Your task to perform on an android device: allow notifications from all sites in the chrome app Image 0: 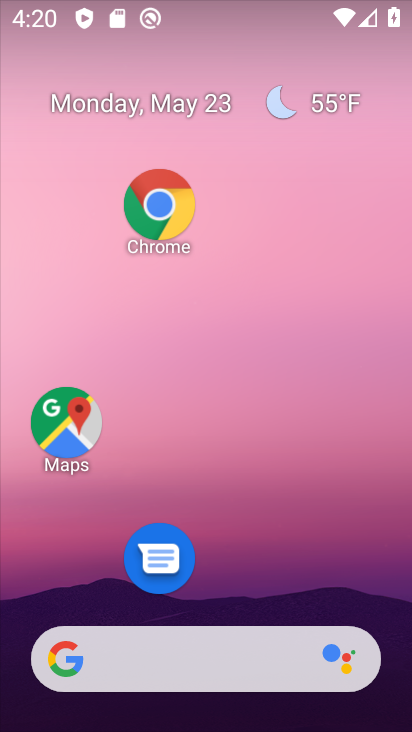
Step 0: drag from (279, 487) to (110, 0)
Your task to perform on an android device: allow notifications from all sites in the chrome app Image 1: 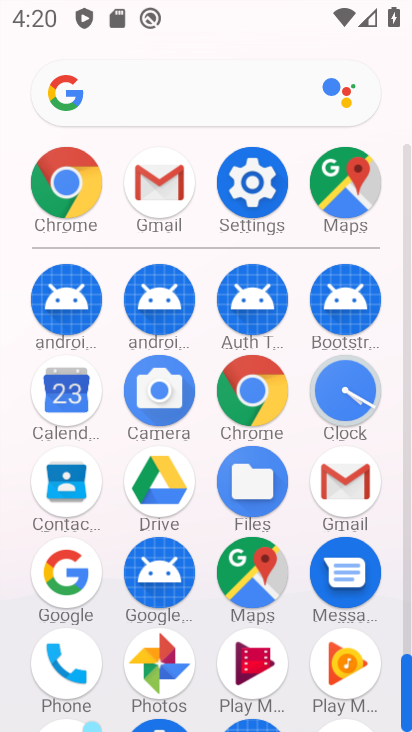
Step 1: click (70, 171)
Your task to perform on an android device: allow notifications from all sites in the chrome app Image 2: 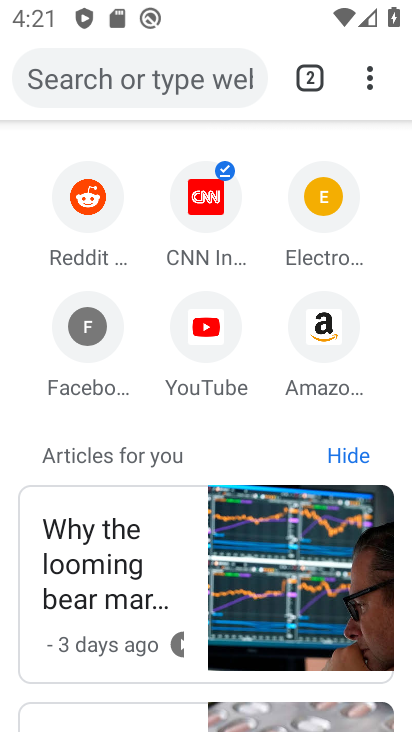
Step 2: drag from (367, 82) to (84, 614)
Your task to perform on an android device: allow notifications from all sites in the chrome app Image 3: 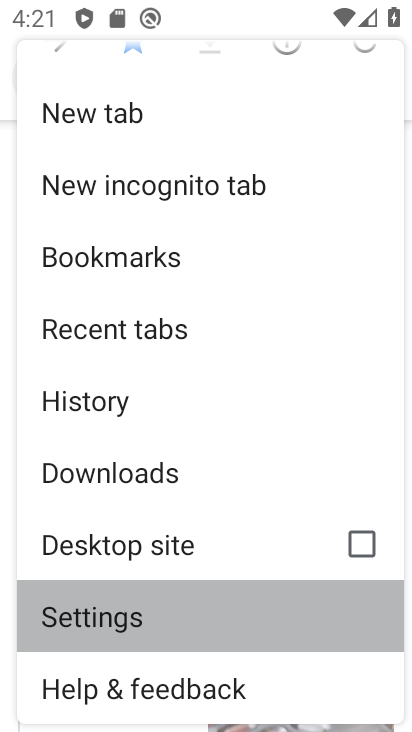
Step 3: click (84, 614)
Your task to perform on an android device: allow notifications from all sites in the chrome app Image 4: 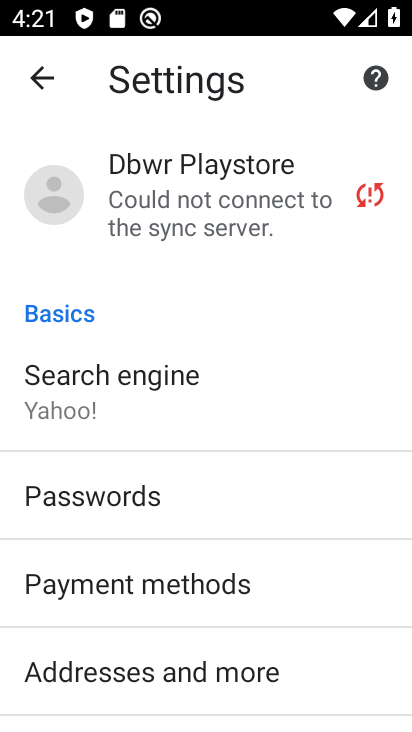
Step 4: drag from (183, 558) to (135, 131)
Your task to perform on an android device: allow notifications from all sites in the chrome app Image 5: 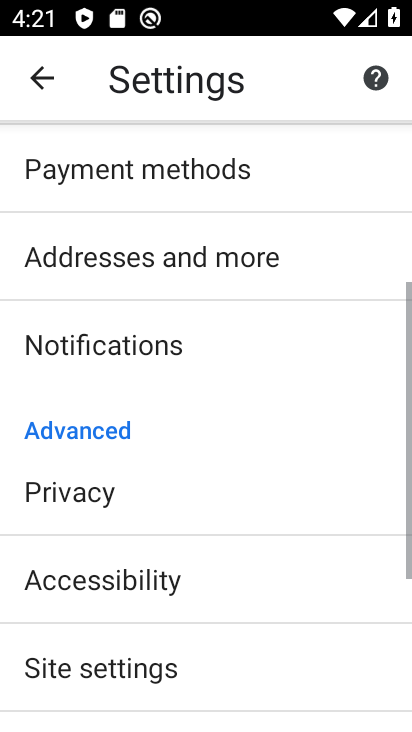
Step 5: drag from (230, 527) to (137, 54)
Your task to perform on an android device: allow notifications from all sites in the chrome app Image 6: 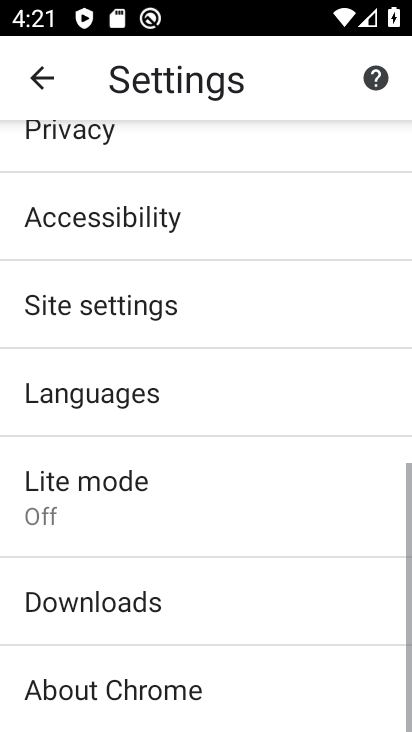
Step 6: drag from (221, 456) to (227, 90)
Your task to perform on an android device: allow notifications from all sites in the chrome app Image 7: 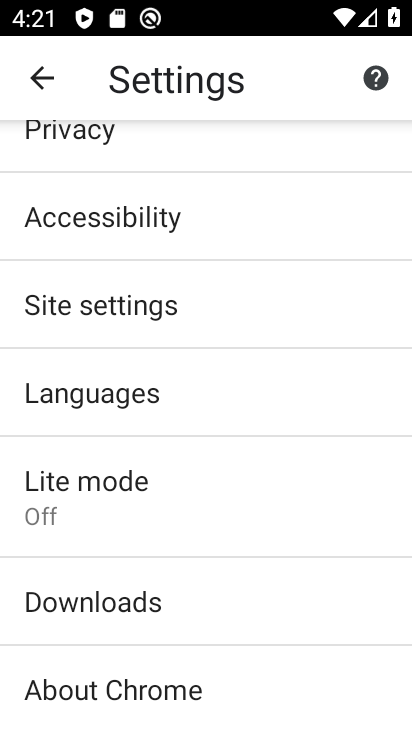
Step 7: click (80, 304)
Your task to perform on an android device: allow notifications from all sites in the chrome app Image 8: 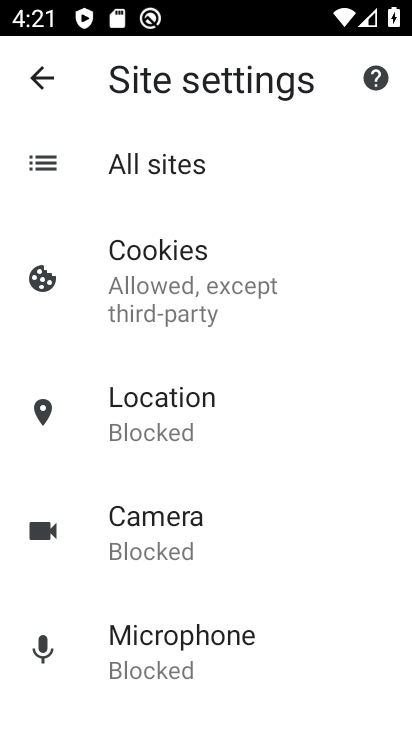
Step 8: click (158, 167)
Your task to perform on an android device: allow notifications from all sites in the chrome app Image 9: 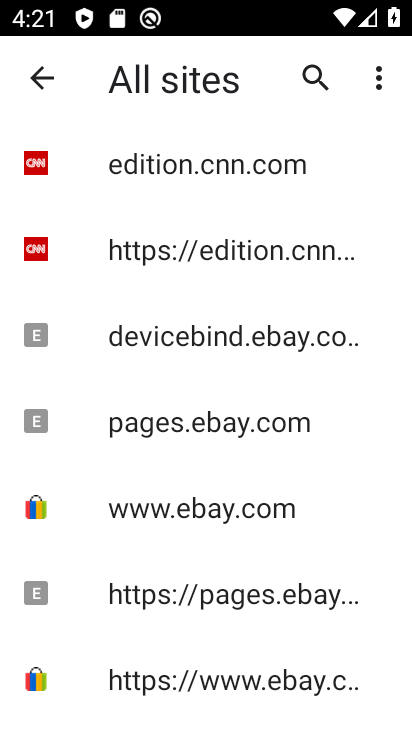
Step 9: click (372, 82)
Your task to perform on an android device: allow notifications from all sites in the chrome app Image 10: 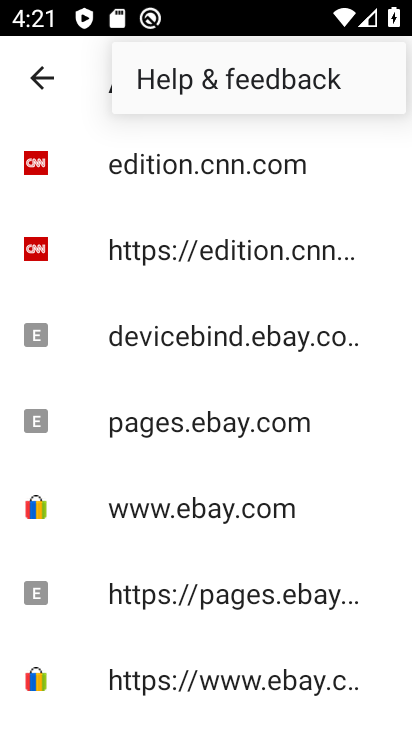
Step 10: click (354, 200)
Your task to perform on an android device: allow notifications from all sites in the chrome app Image 11: 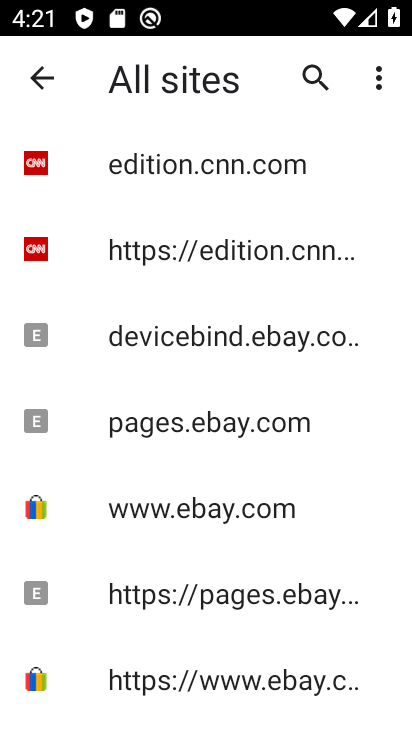
Step 11: click (195, 166)
Your task to perform on an android device: allow notifications from all sites in the chrome app Image 12: 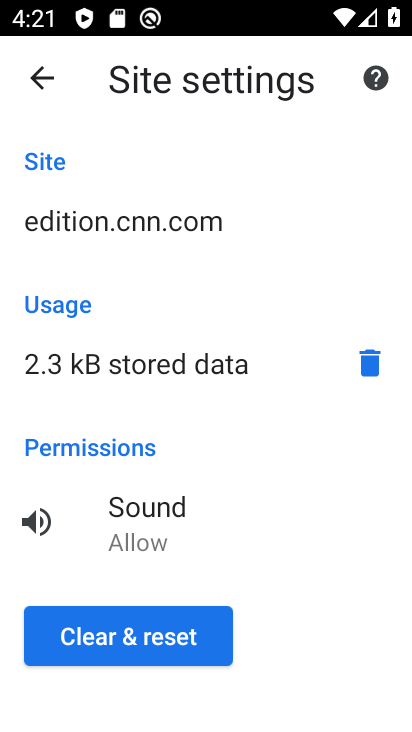
Step 12: task complete